Your task to perform on an android device: toggle location history Image 0: 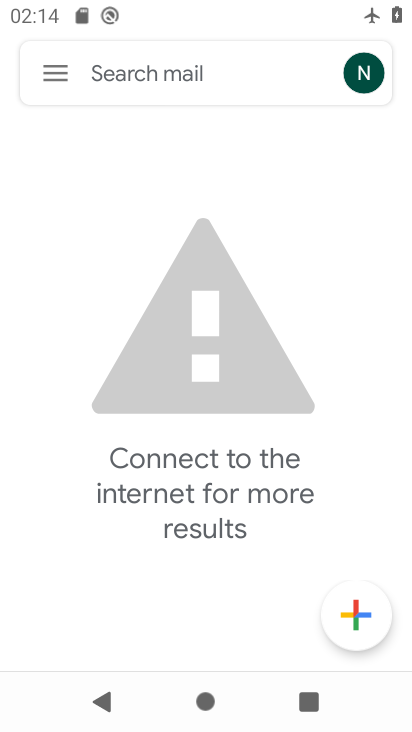
Step 0: press home button
Your task to perform on an android device: toggle location history Image 1: 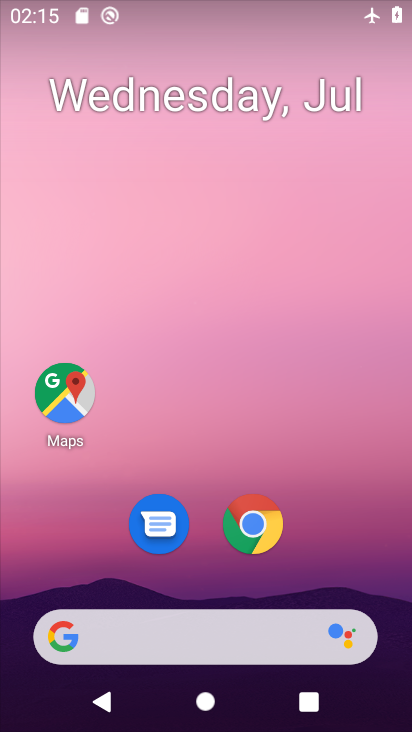
Step 1: drag from (246, 309) to (284, 13)
Your task to perform on an android device: toggle location history Image 2: 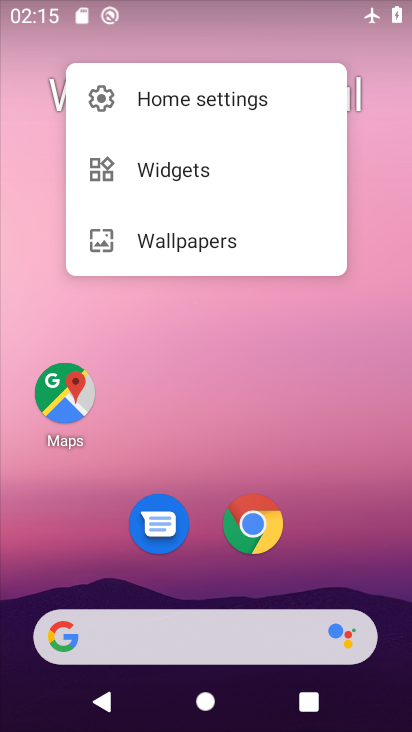
Step 2: click (302, 438)
Your task to perform on an android device: toggle location history Image 3: 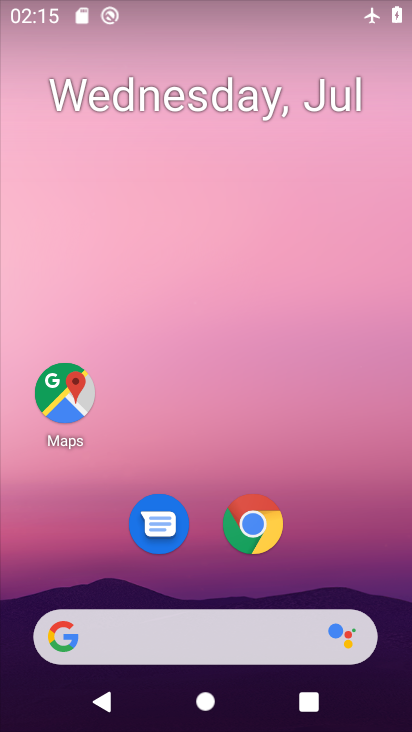
Step 3: drag from (316, 555) to (317, 40)
Your task to perform on an android device: toggle location history Image 4: 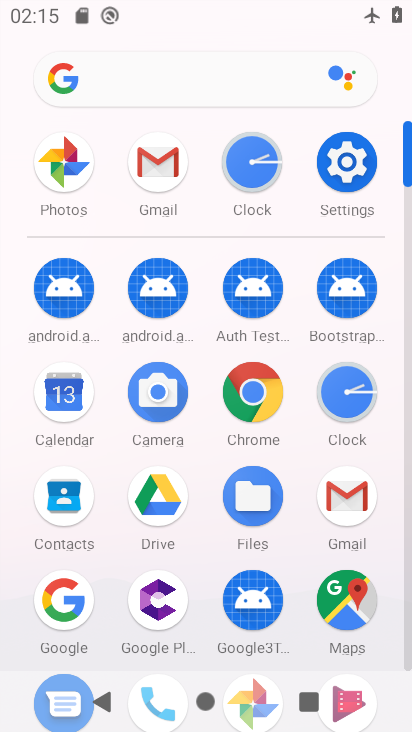
Step 4: click (341, 152)
Your task to perform on an android device: toggle location history Image 5: 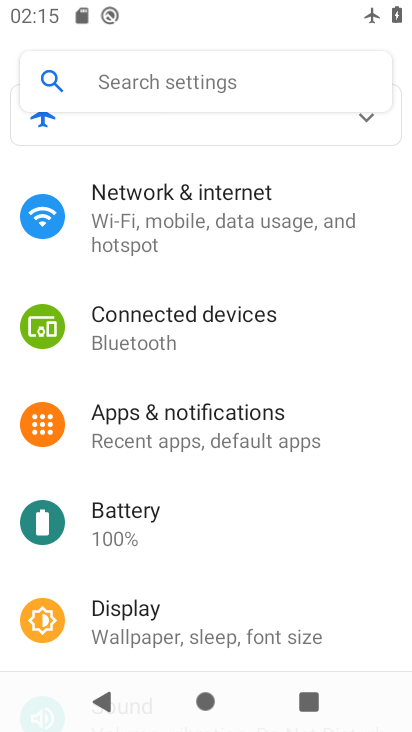
Step 5: drag from (229, 516) to (234, 92)
Your task to perform on an android device: toggle location history Image 6: 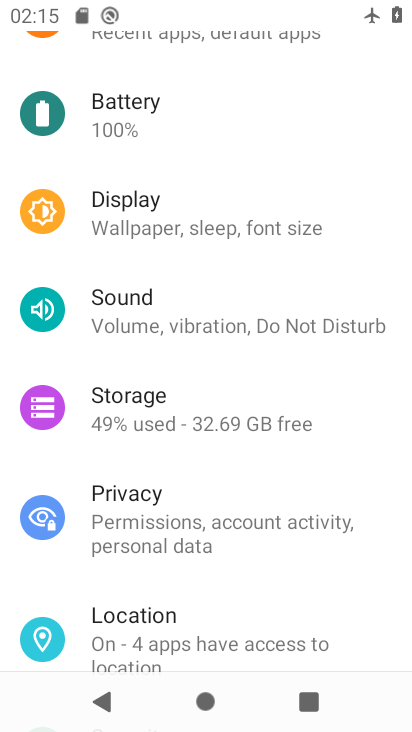
Step 6: drag from (226, 477) to (253, 183)
Your task to perform on an android device: toggle location history Image 7: 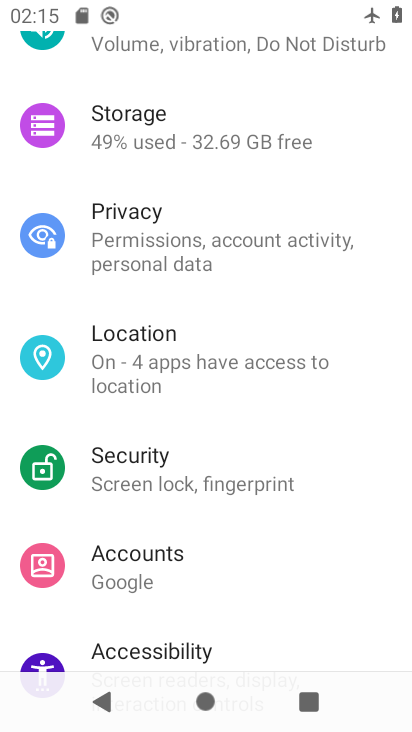
Step 7: click (204, 348)
Your task to perform on an android device: toggle location history Image 8: 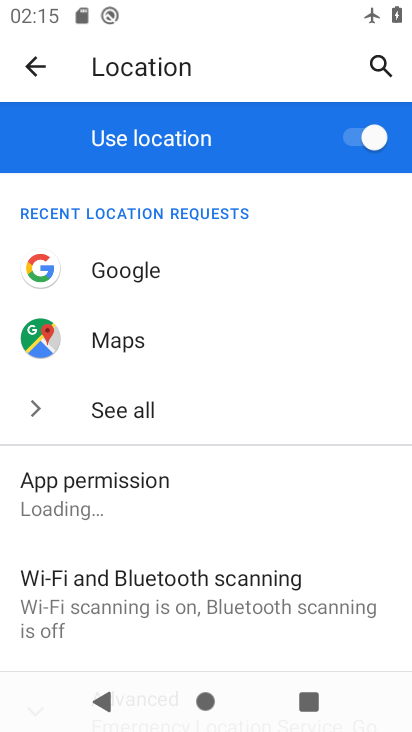
Step 8: drag from (193, 526) to (209, 185)
Your task to perform on an android device: toggle location history Image 9: 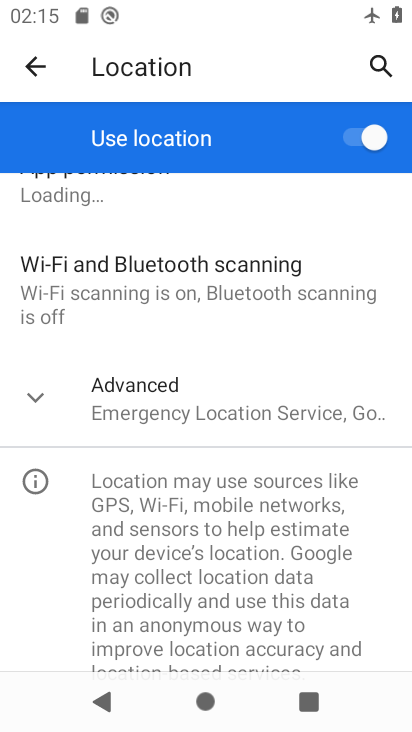
Step 9: click (34, 399)
Your task to perform on an android device: toggle location history Image 10: 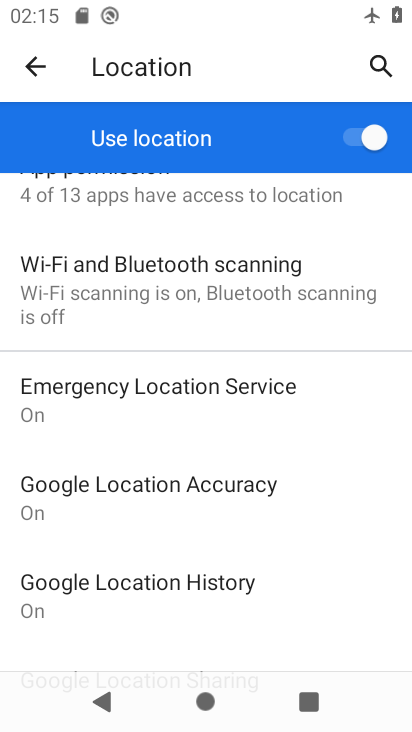
Step 10: click (166, 583)
Your task to perform on an android device: toggle location history Image 11: 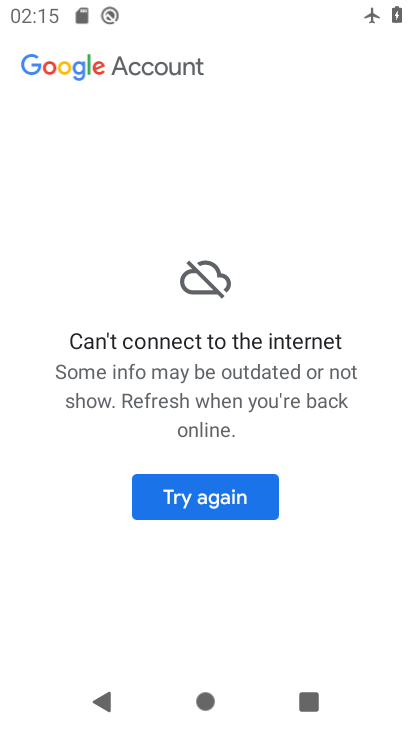
Step 11: click (251, 491)
Your task to perform on an android device: toggle location history Image 12: 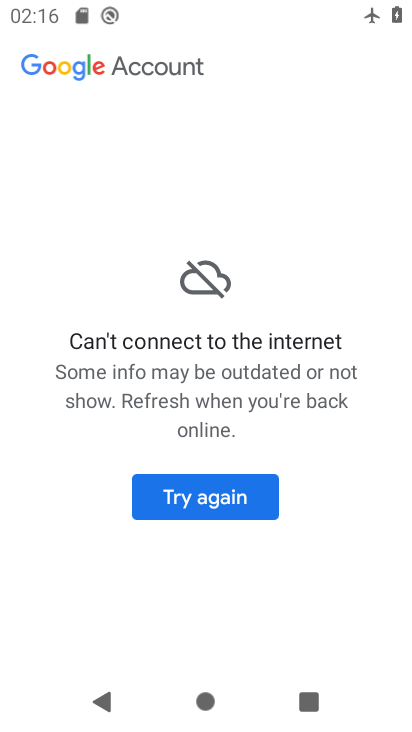
Step 12: task complete